Your task to perform on an android device: Open settings Image 0: 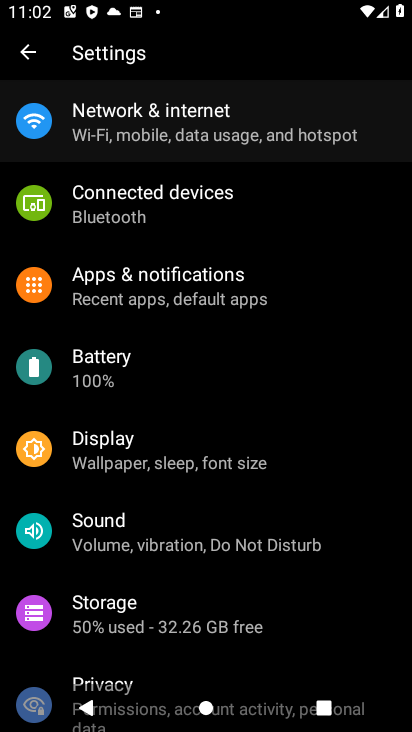
Step 0: task complete